Your task to perform on an android device: Search for seafood restaurants on Google Maps Image 0: 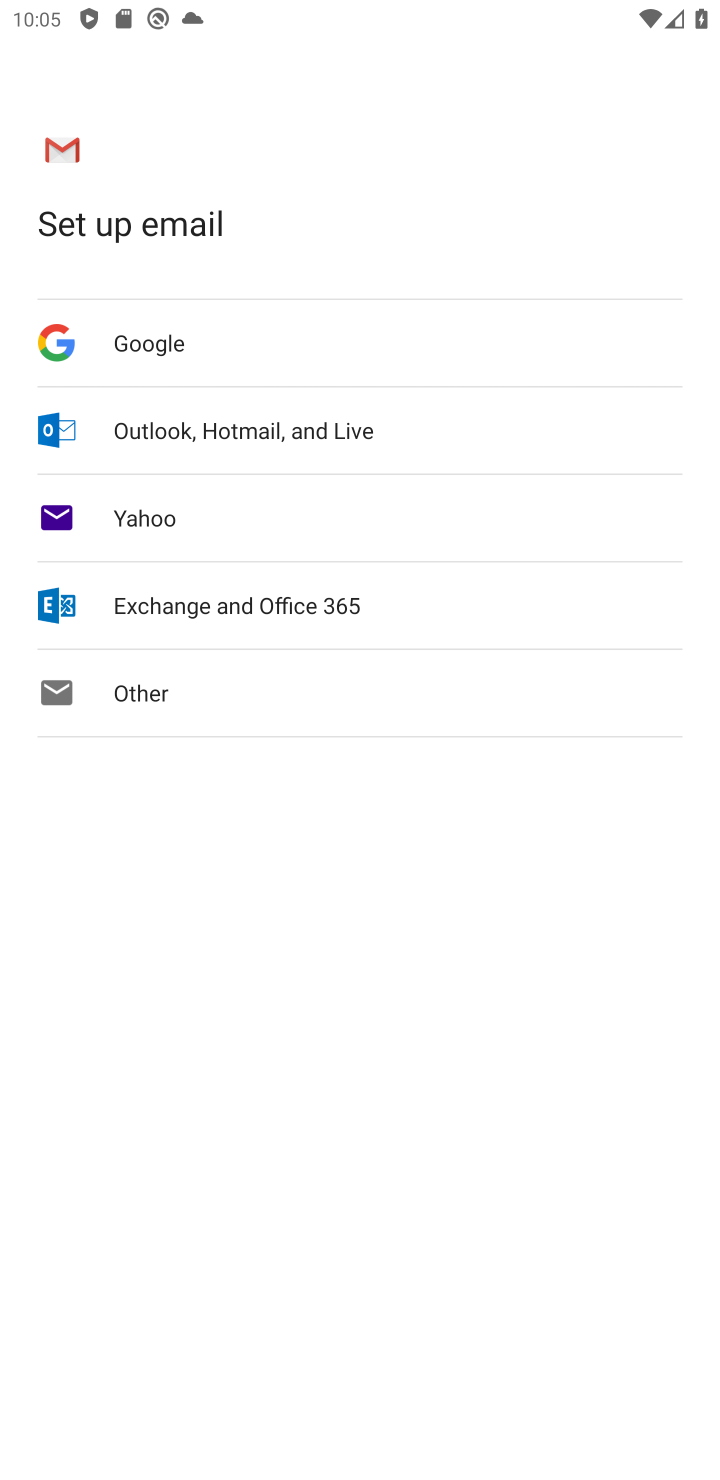
Step 0: press home button
Your task to perform on an android device: Search for seafood restaurants on Google Maps Image 1: 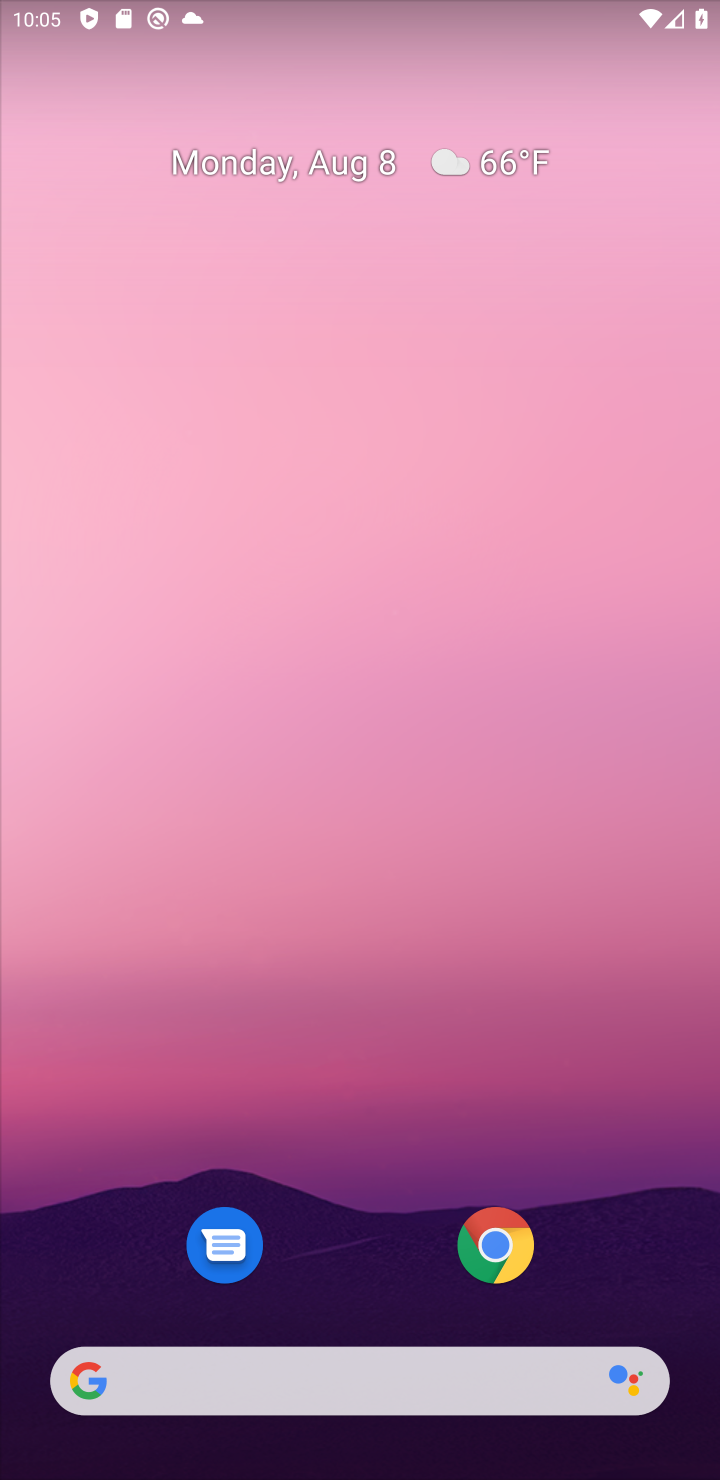
Step 1: drag from (375, 1127) to (375, 181)
Your task to perform on an android device: Search for seafood restaurants on Google Maps Image 2: 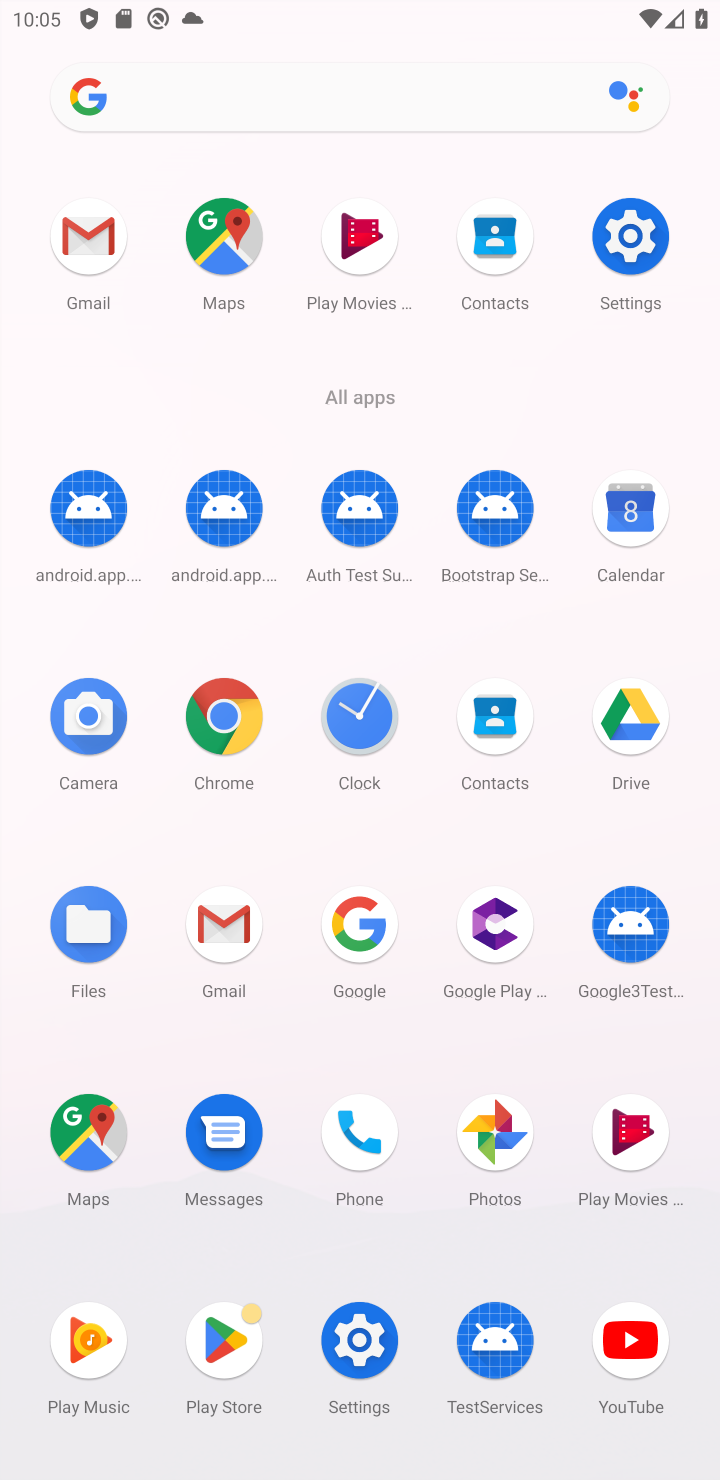
Step 2: click (72, 1114)
Your task to perform on an android device: Search for seafood restaurants on Google Maps Image 3: 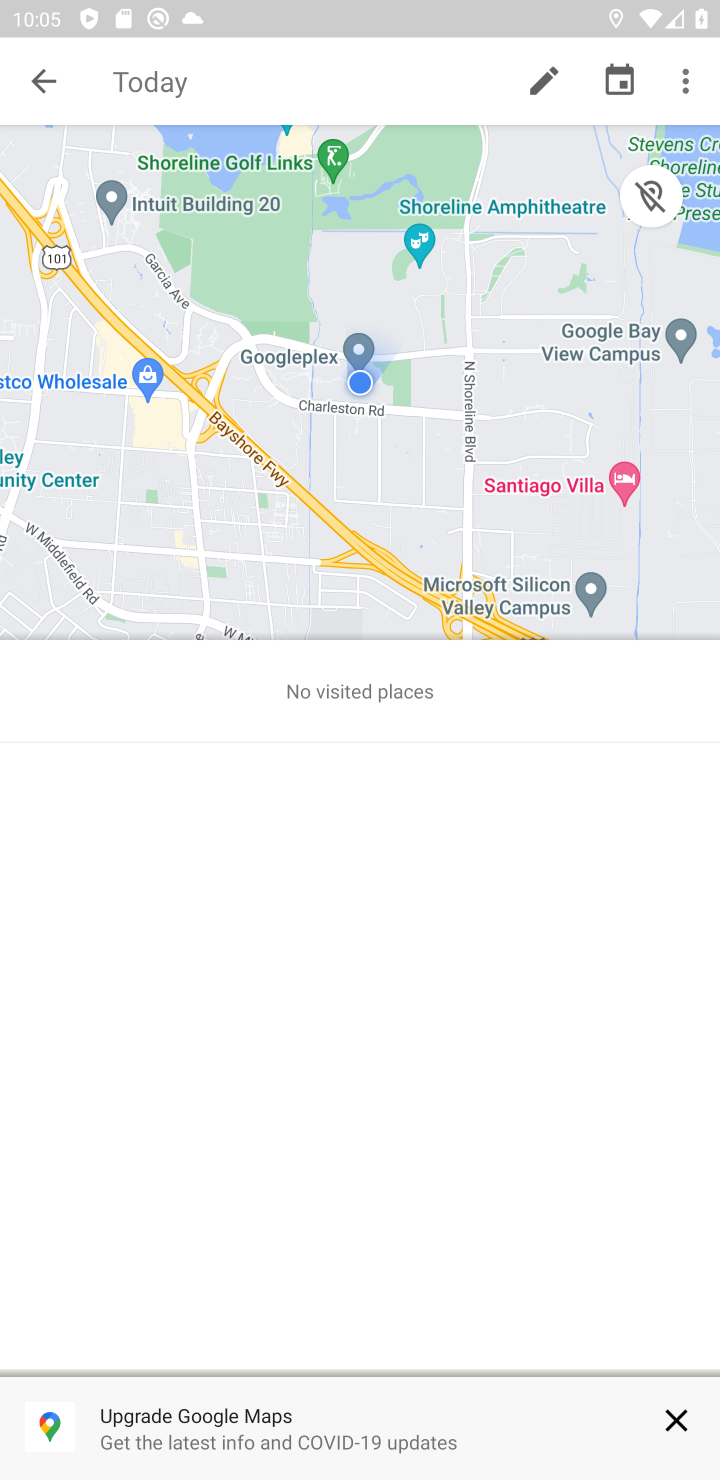
Step 3: click (42, 76)
Your task to perform on an android device: Search for seafood restaurants on Google Maps Image 4: 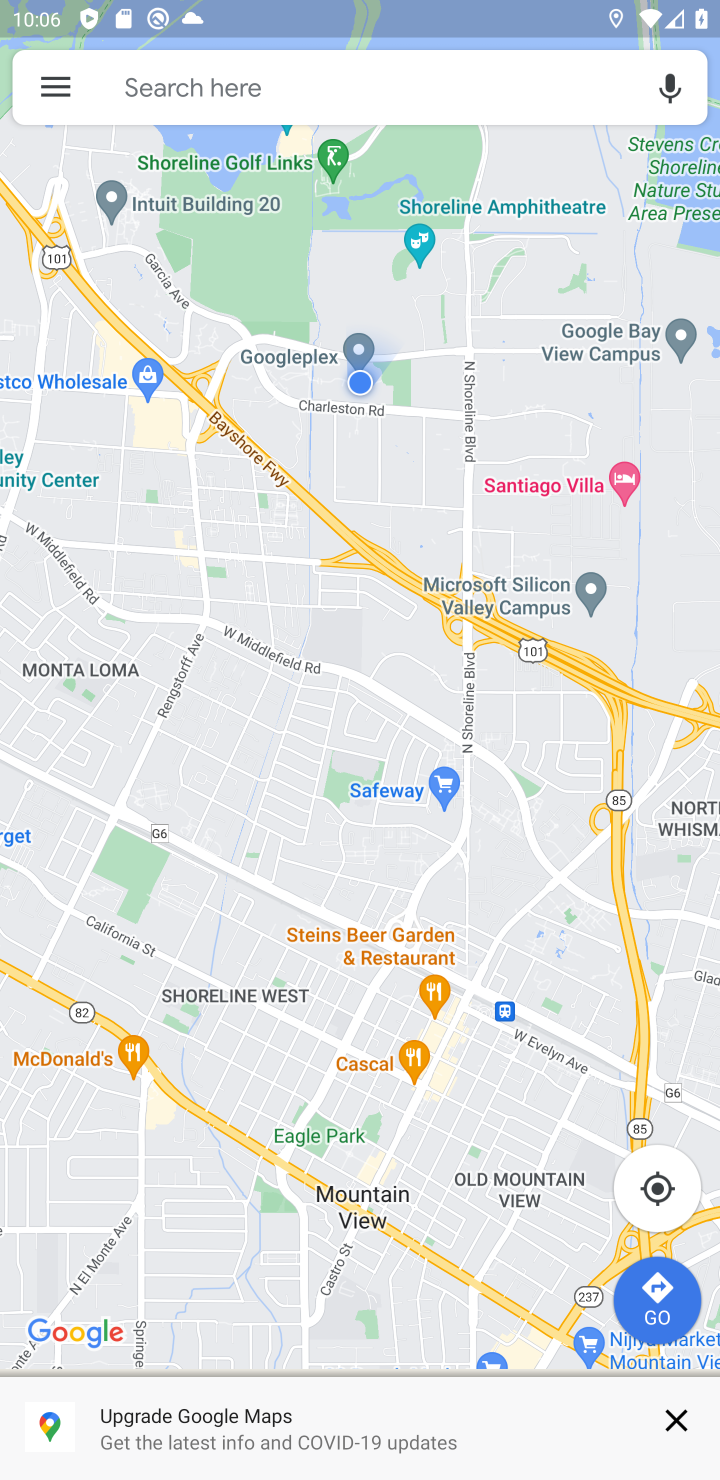
Step 4: click (296, 75)
Your task to perform on an android device: Search for seafood restaurants on Google Maps Image 5: 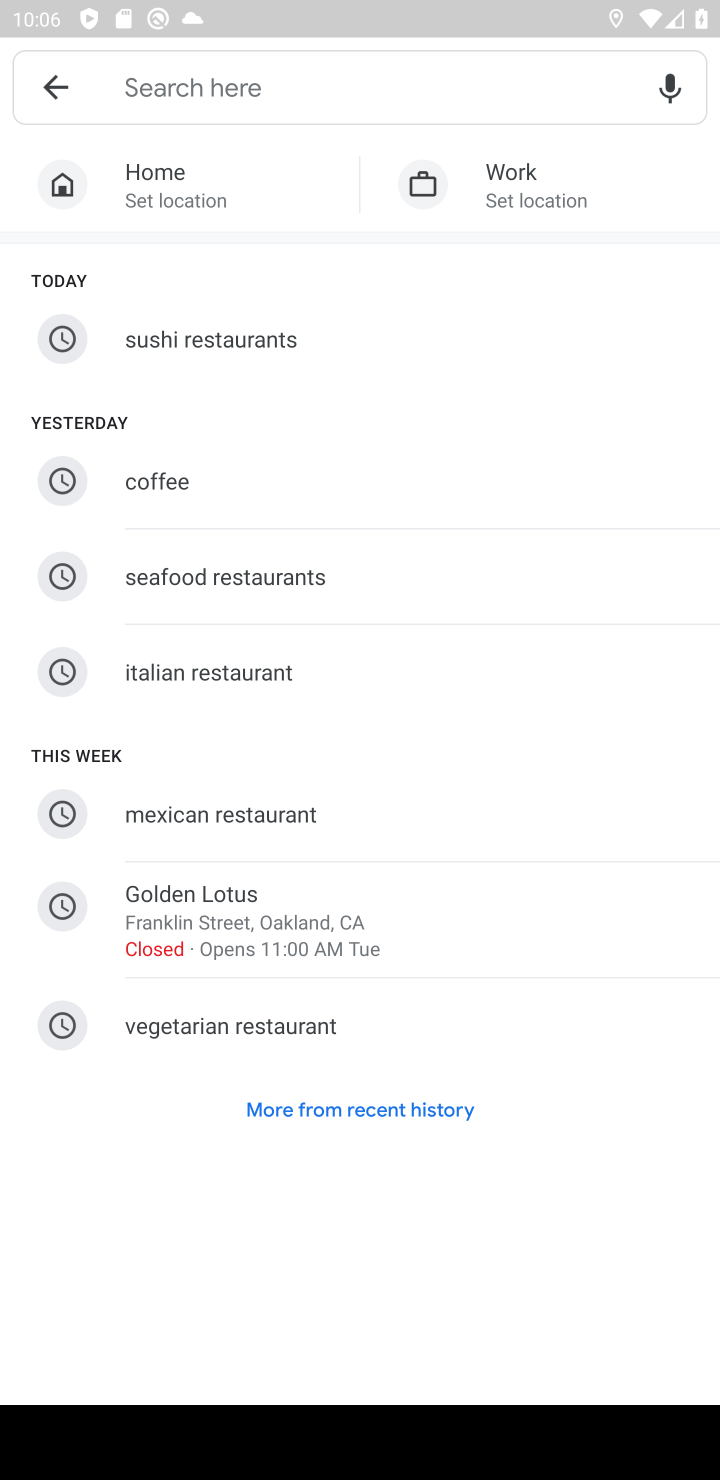
Step 5: click (236, 574)
Your task to perform on an android device: Search for seafood restaurants on Google Maps Image 6: 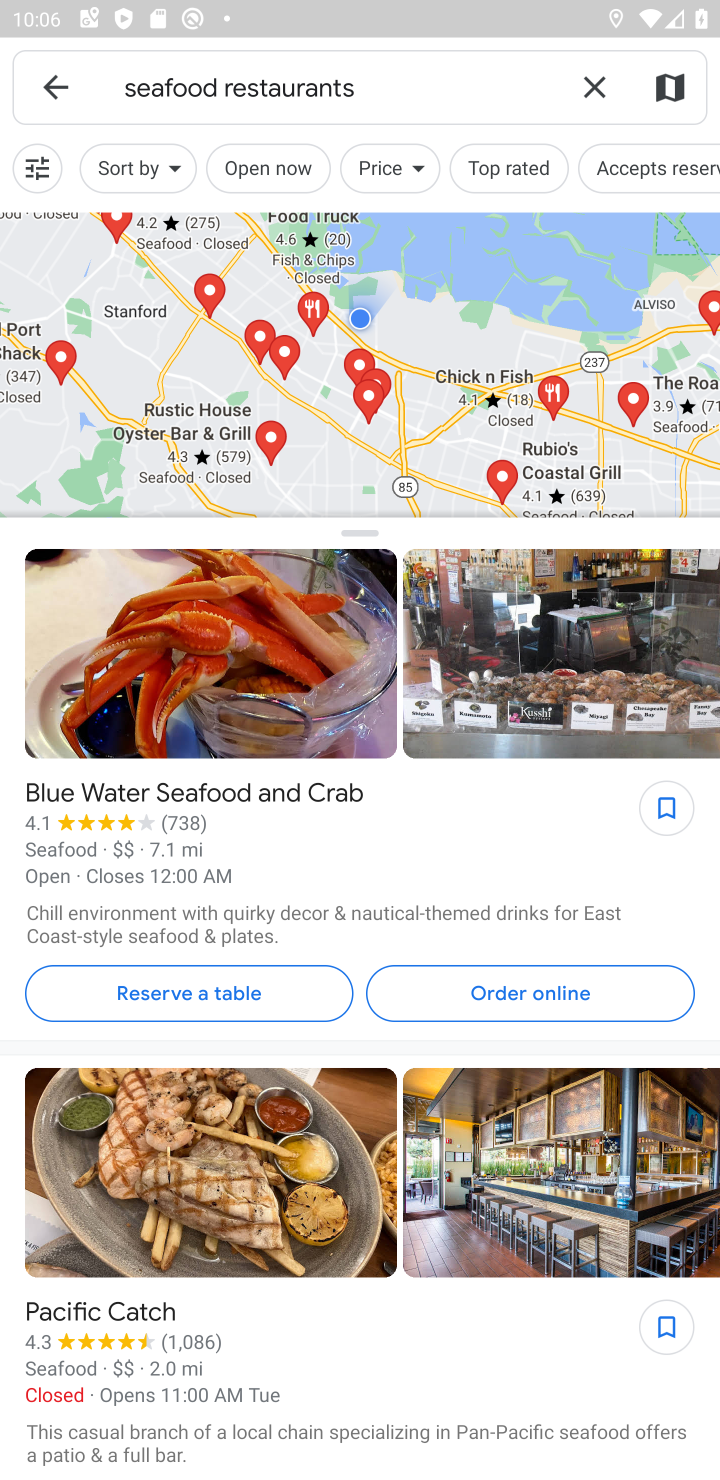
Step 6: task complete